Your task to perform on an android device: Go to Google maps Image 0: 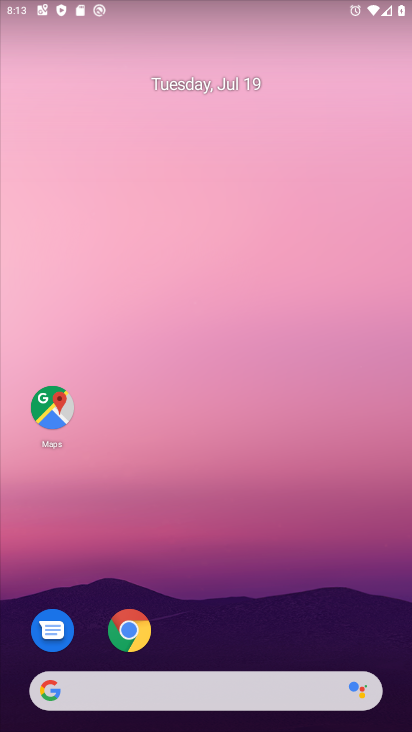
Step 0: click (53, 415)
Your task to perform on an android device: Go to Google maps Image 1: 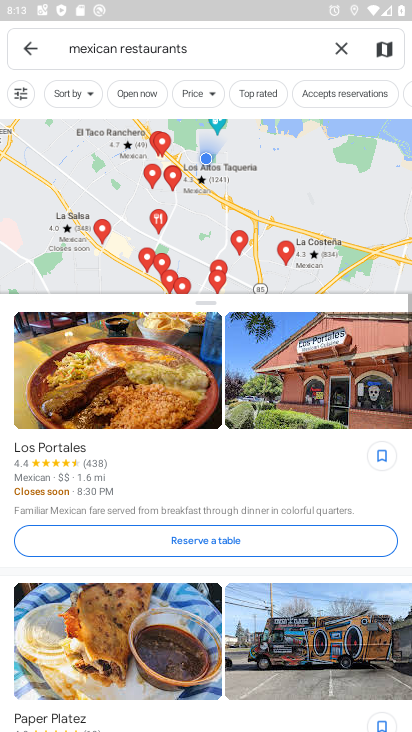
Step 1: task complete